Your task to perform on an android device: Open the map Image 0: 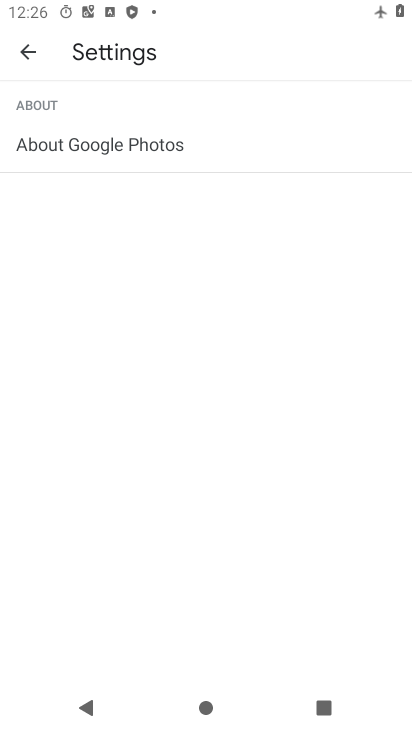
Step 0: press home button
Your task to perform on an android device: Open the map Image 1: 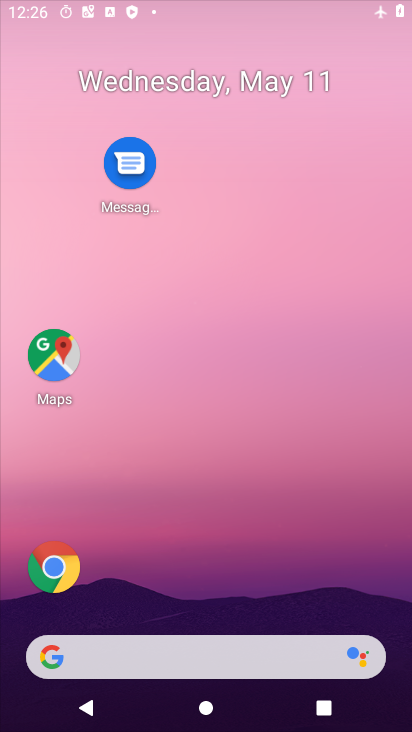
Step 1: drag from (235, 547) to (266, 230)
Your task to perform on an android device: Open the map Image 2: 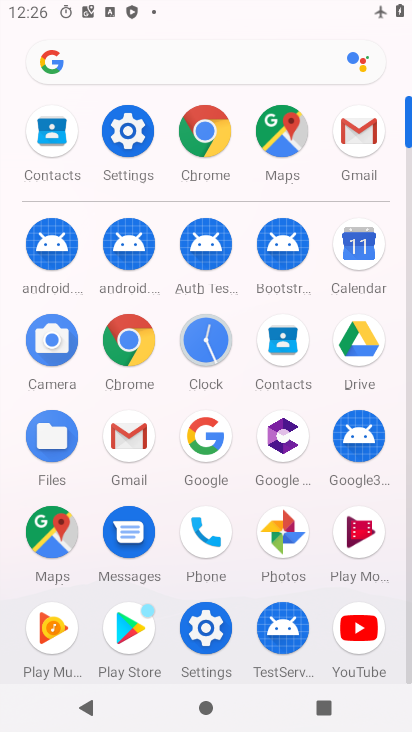
Step 2: click (44, 552)
Your task to perform on an android device: Open the map Image 3: 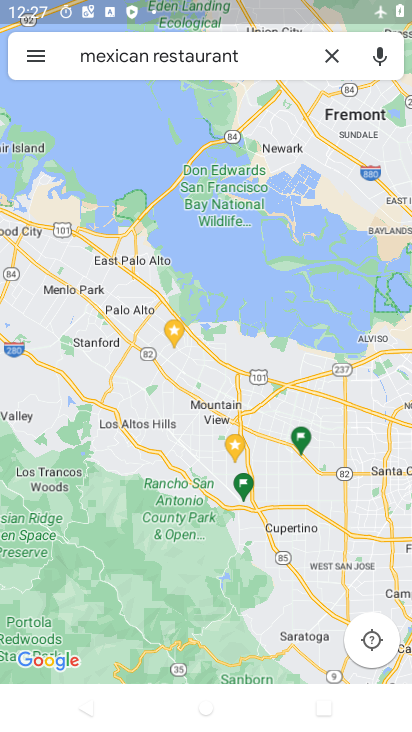
Step 3: task complete